Your task to perform on an android device: uninstall "Google News" Image 0: 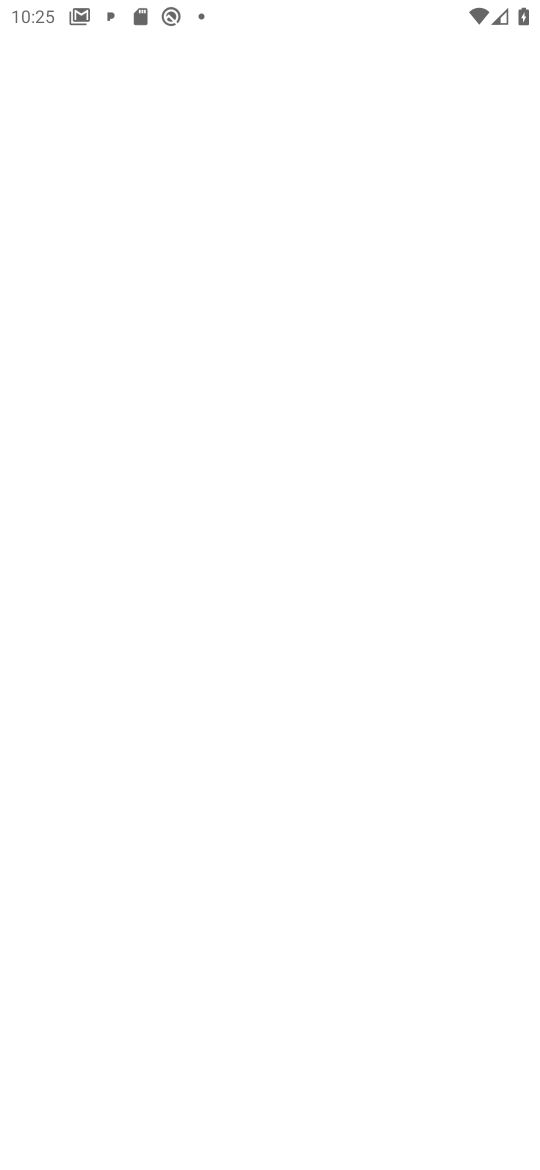
Step 0: press home button
Your task to perform on an android device: uninstall "Google News" Image 1: 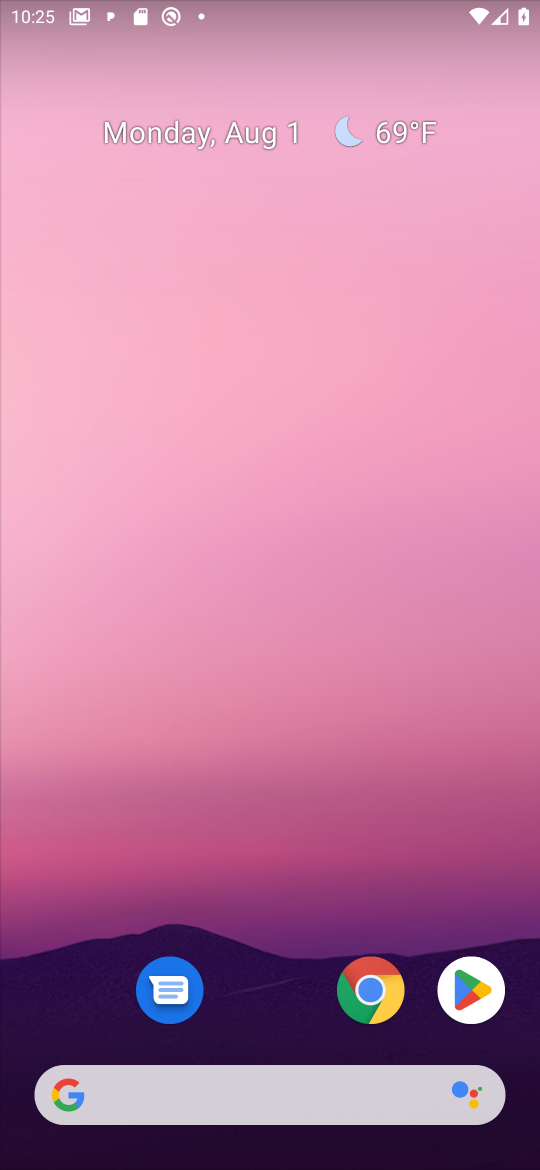
Step 1: click (469, 998)
Your task to perform on an android device: uninstall "Google News" Image 2: 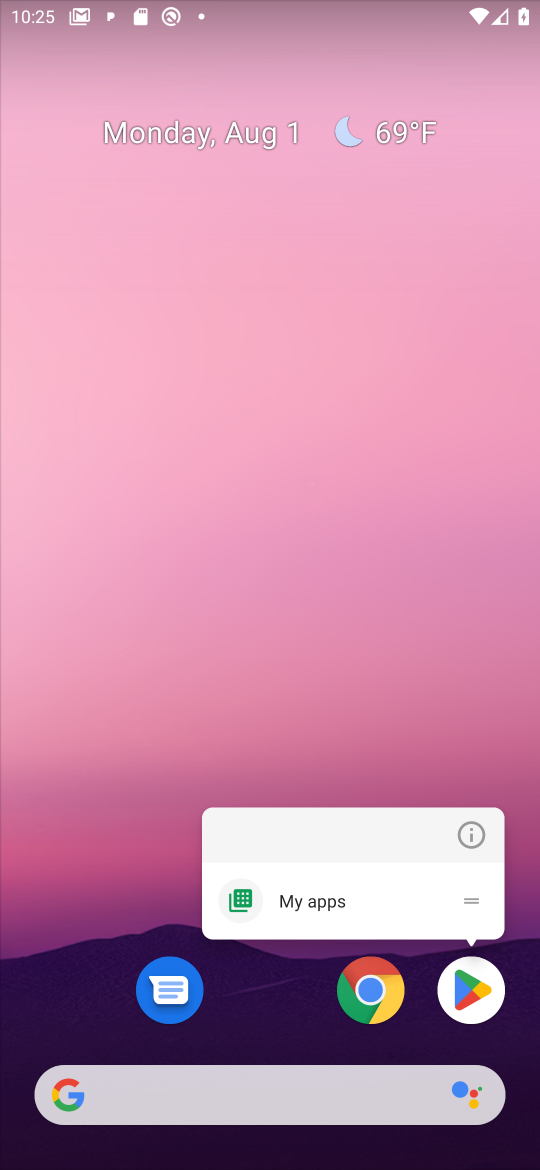
Step 2: click (462, 1016)
Your task to perform on an android device: uninstall "Google News" Image 3: 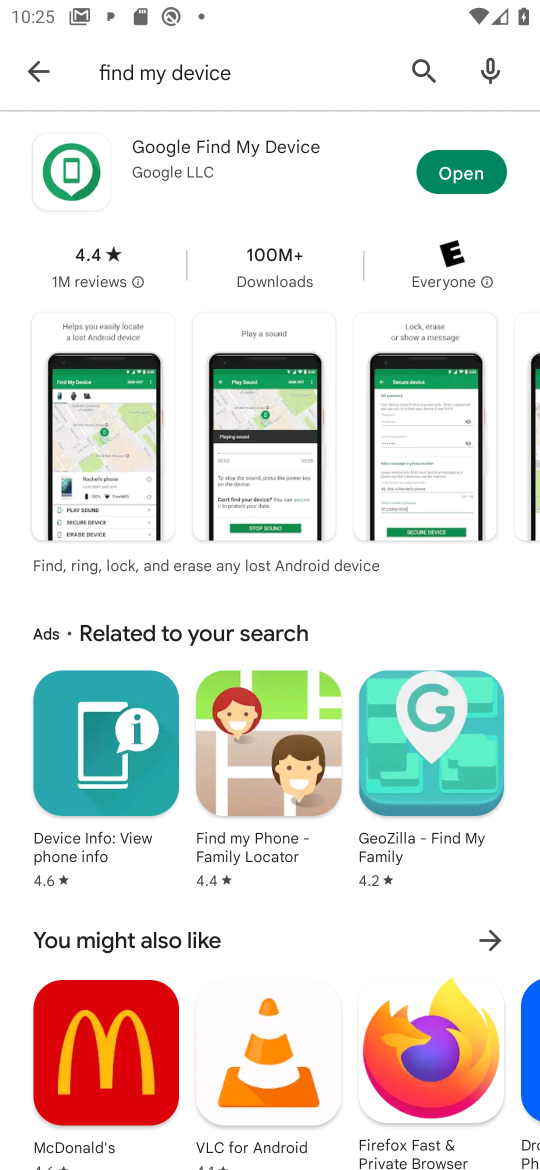
Step 3: click (428, 73)
Your task to perform on an android device: uninstall "Google News" Image 4: 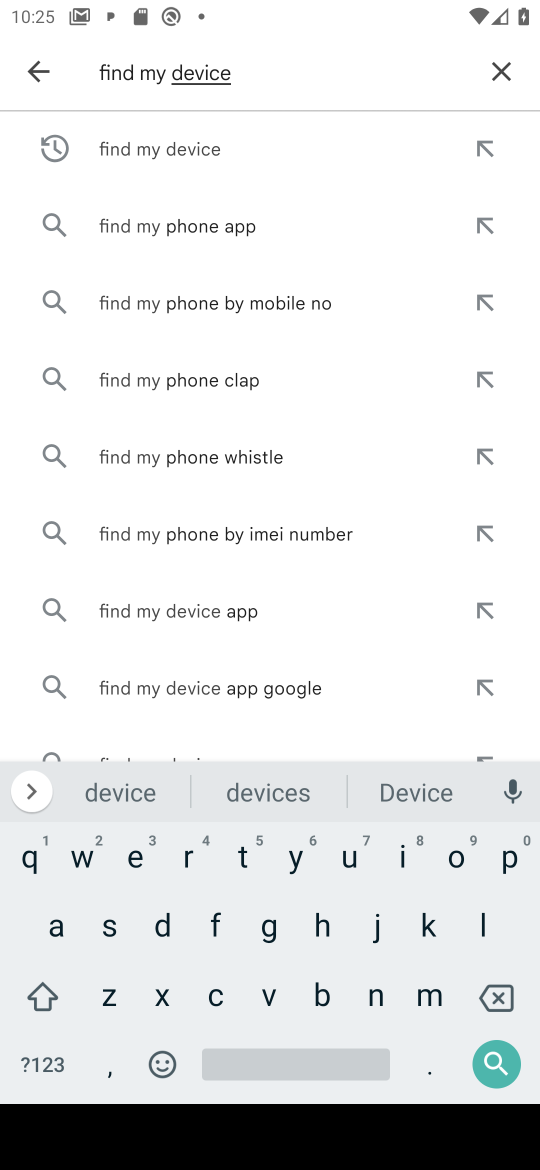
Step 4: click (496, 67)
Your task to perform on an android device: uninstall "Google News" Image 5: 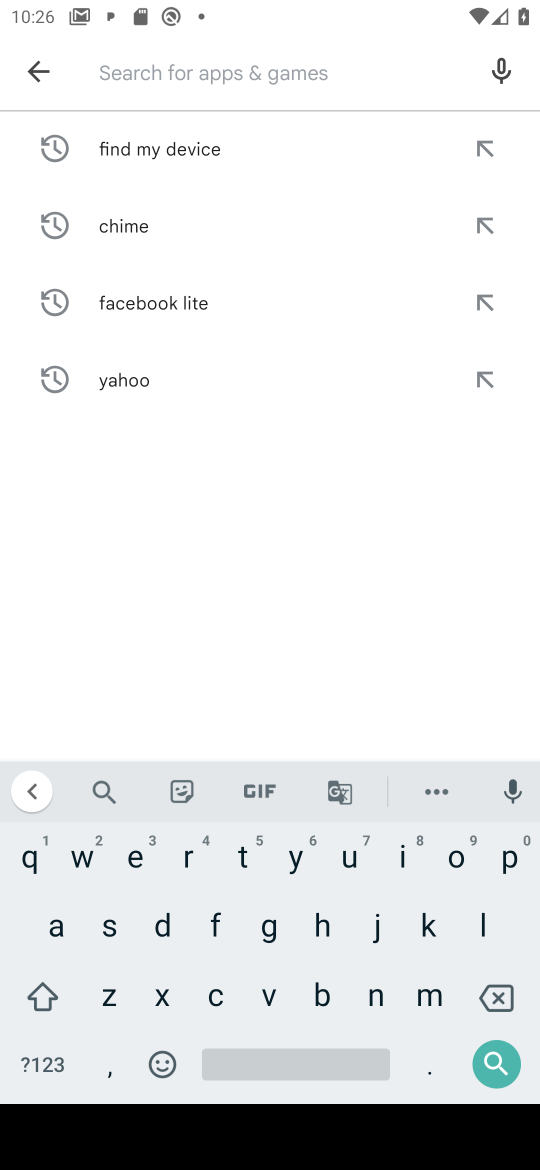
Step 5: click (269, 924)
Your task to perform on an android device: uninstall "Google News" Image 6: 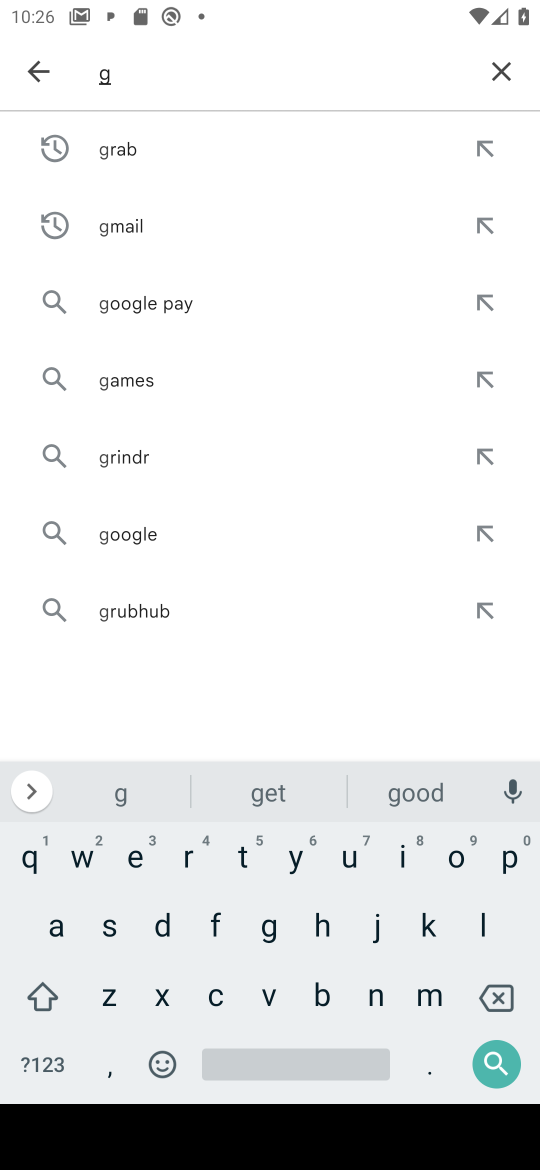
Step 6: click (457, 859)
Your task to perform on an android device: uninstall "Google News" Image 7: 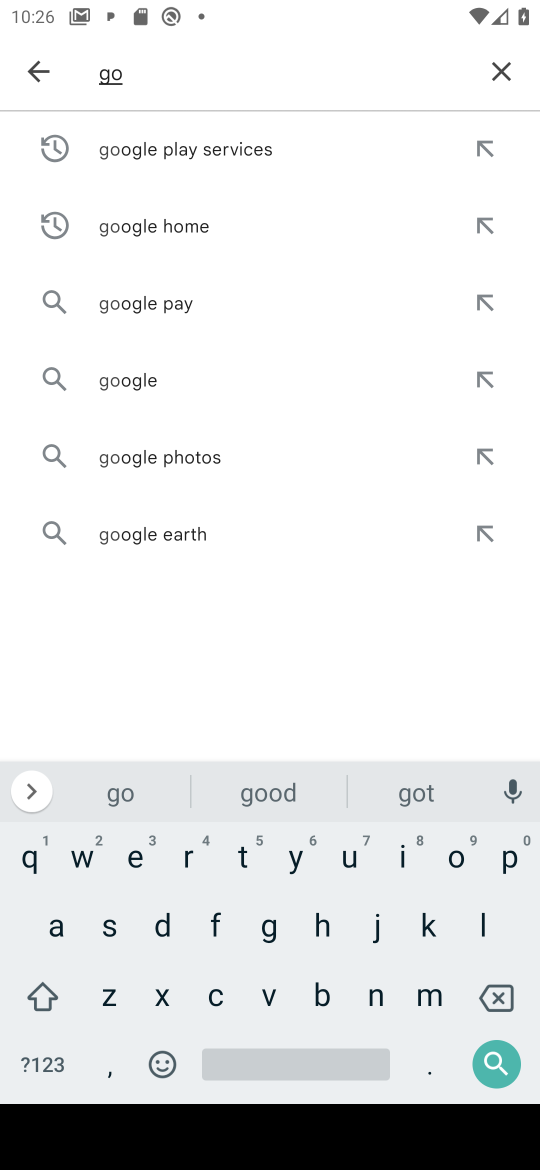
Step 7: click (455, 845)
Your task to perform on an android device: uninstall "Google News" Image 8: 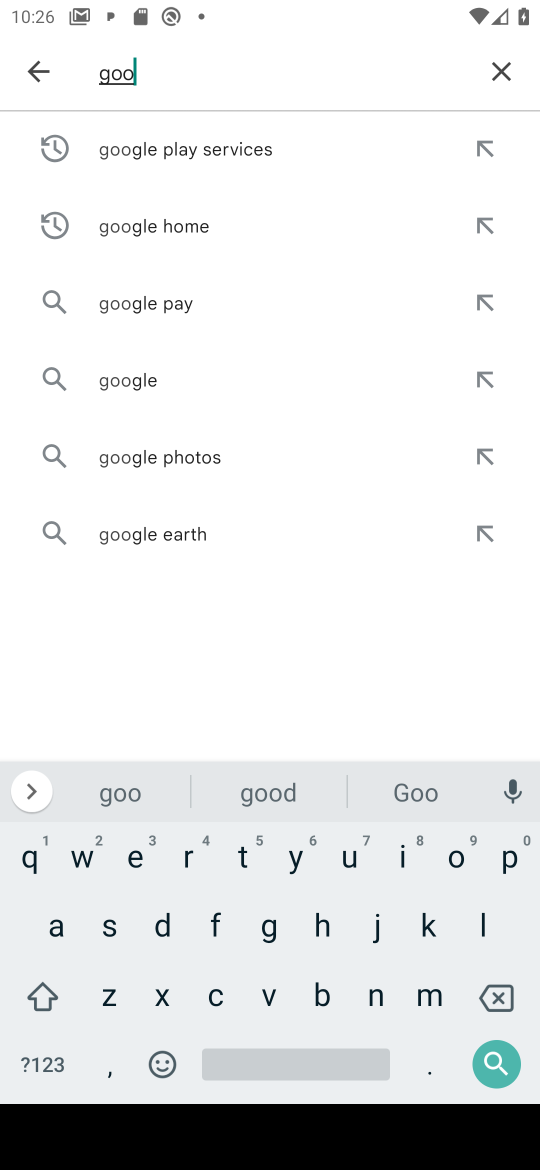
Step 8: click (254, 918)
Your task to perform on an android device: uninstall "Google News" Image 9: 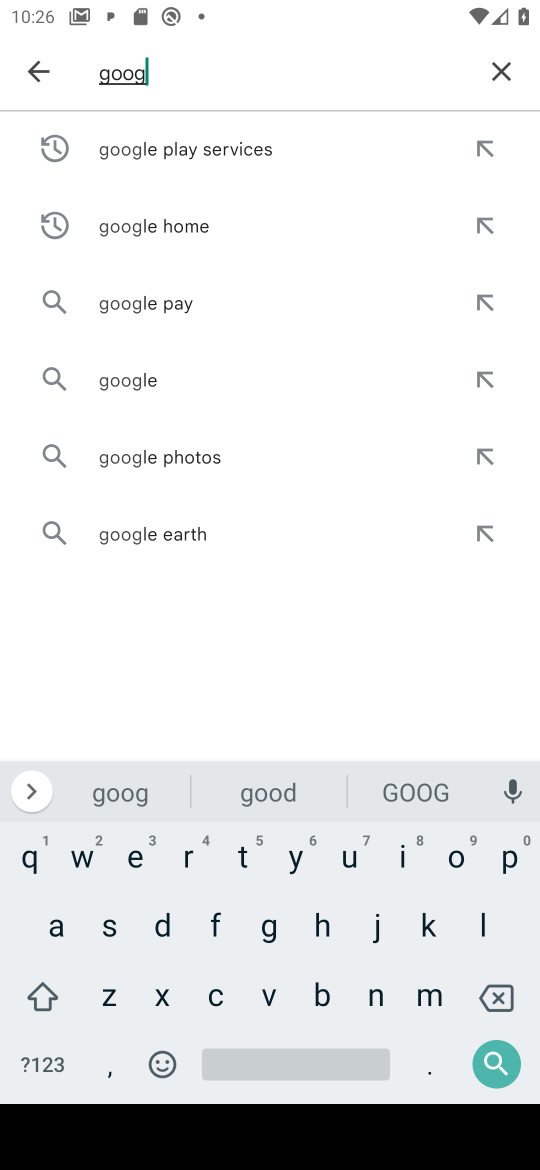
Step 9: click (486, 912)
Your task to perform on an android device: uninstall "Google News" Image 10: 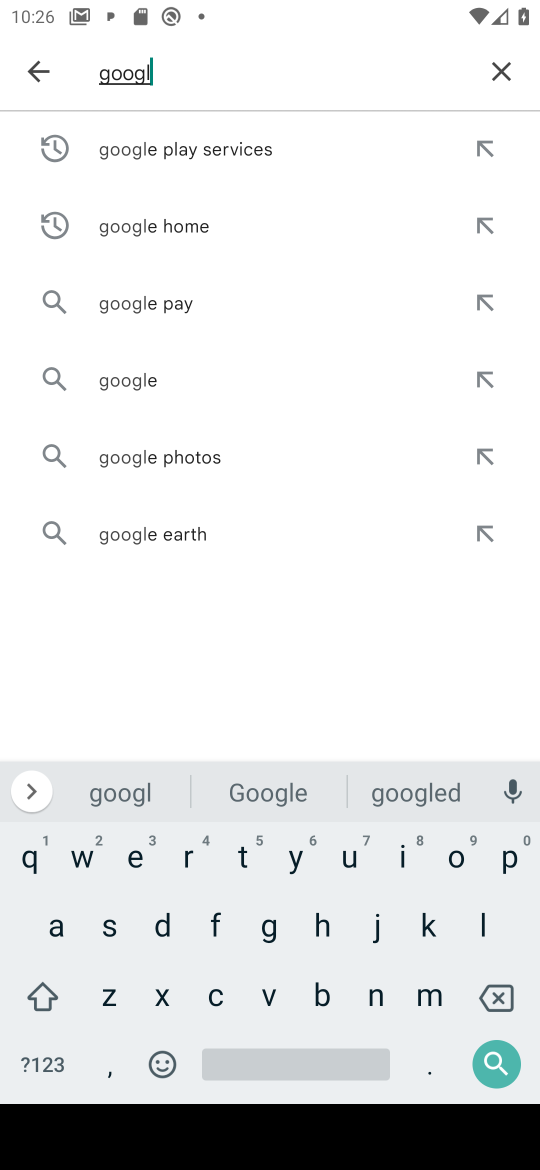
Step 10: click (260, 786)
Your task to perform on an android device: uninstall "Google News" Image 11: 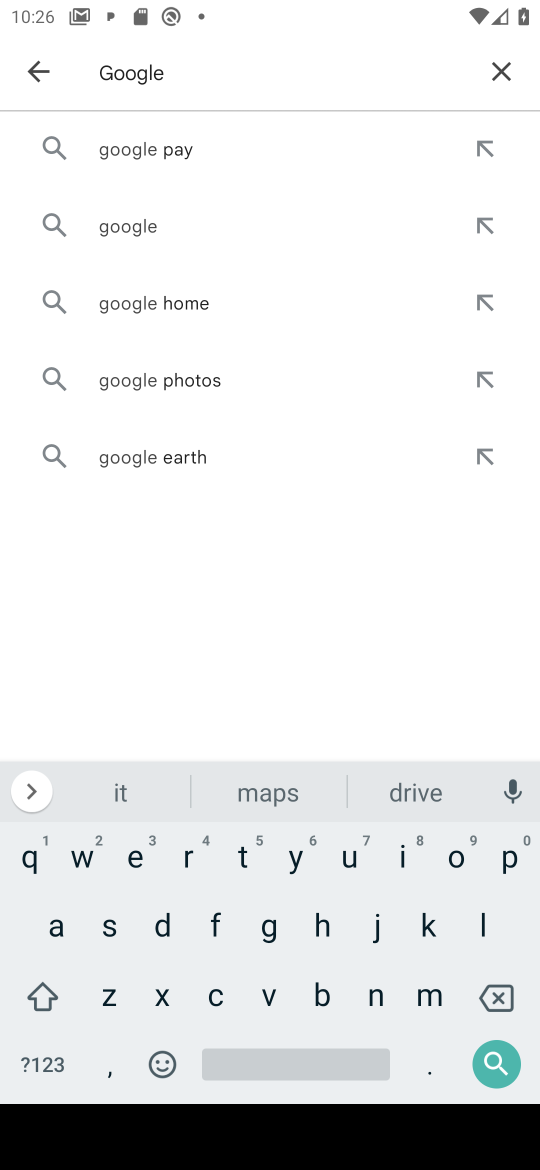
Step 11: click (372, 999)
Your task to perform on an android device: uninstall "Google News" Image 12: 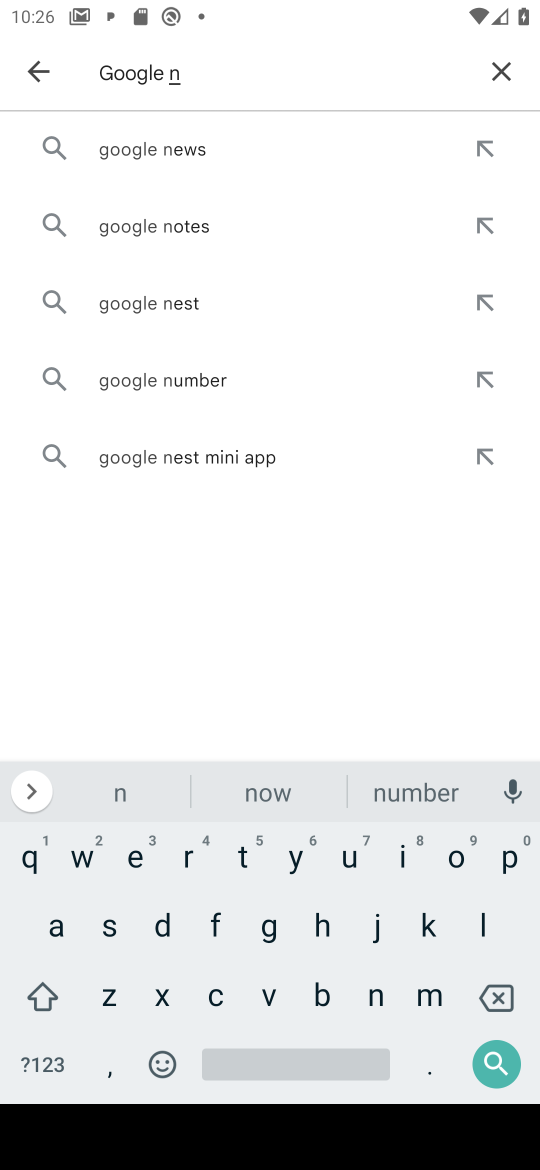
Step 12: click (160, 150)
Your task to perform on an android device: uninstall "Google News" Image 13: 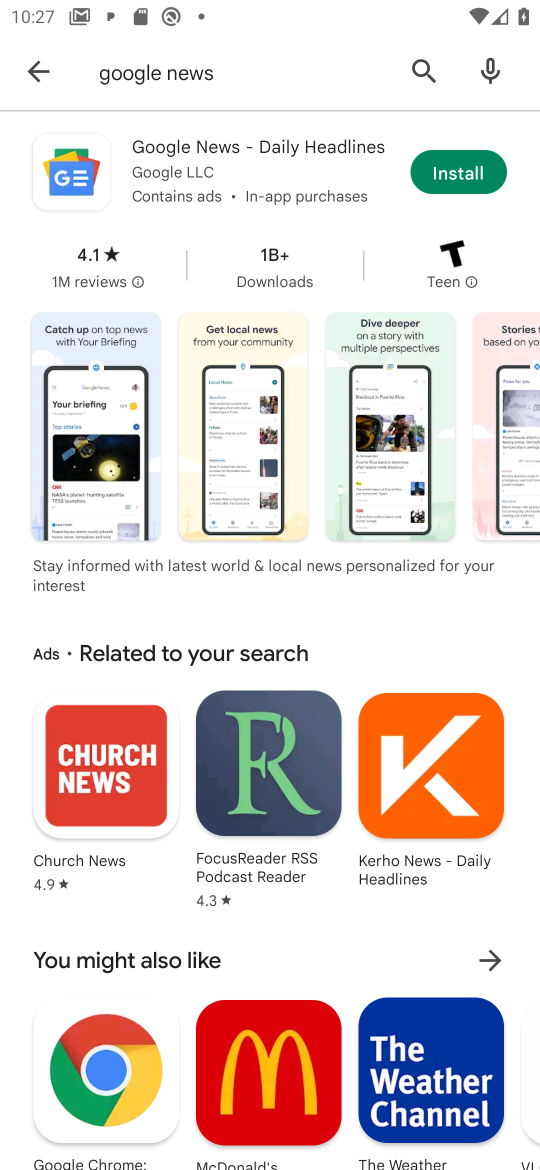
Step 13: task complete